Your task to perform on an android device: see sites visited before in the chrome app Image 0: 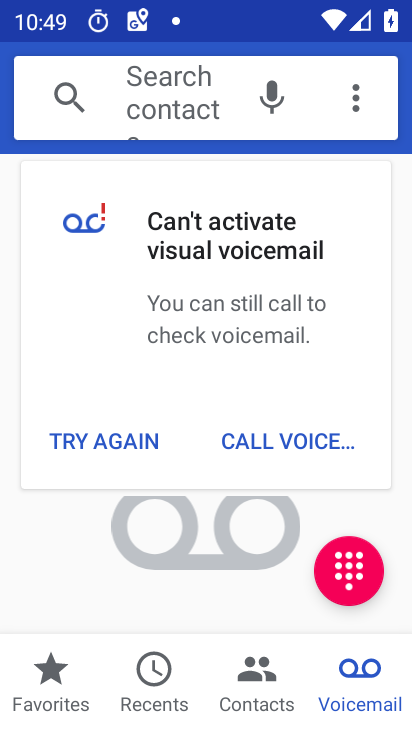
Step 0: press home button
Your task to perform on an android device: see sites visited before in the chrome app Image 1: 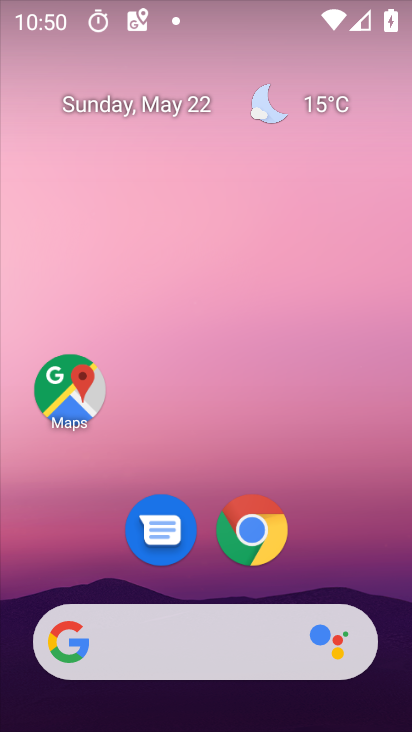
Step 1: click (234, 533)
Your task to perform on an android device: see sites visited before in the chrome app Image 2: 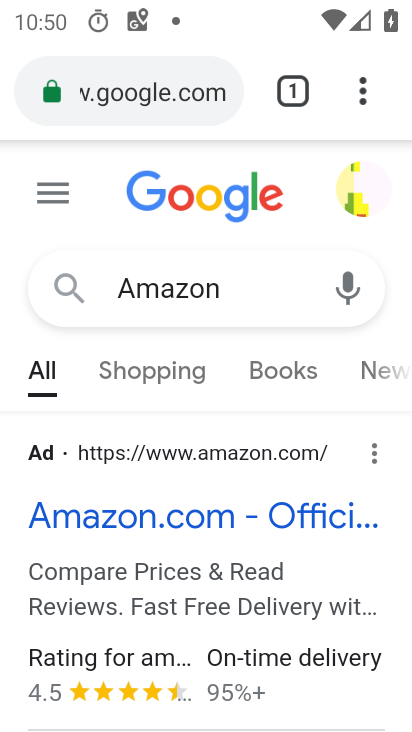
Step 2: click (356, 84)
Your task to perform on an android device: see sites visited before in the chrome app Image 3: 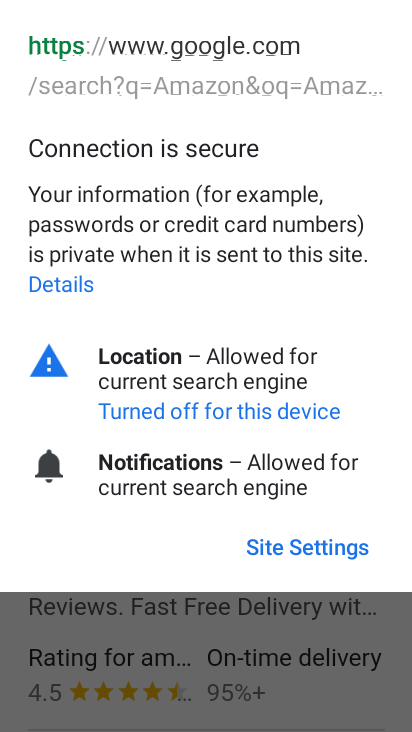
Step 3: press back button
Your task to perform on an android device: see sites visited before in the chrome app Image 4: 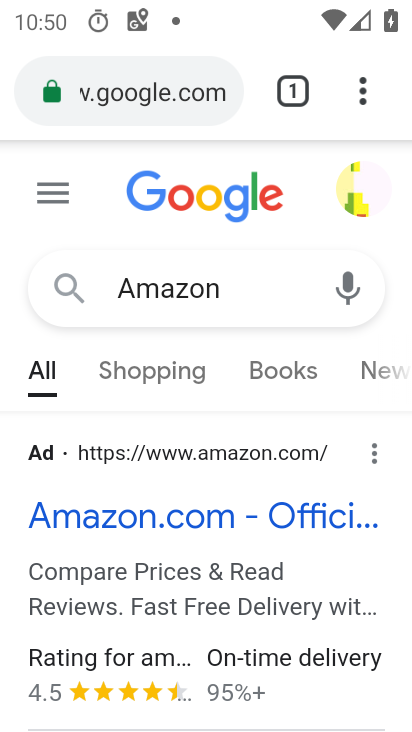
Step 4: click (362, 82)
Your task to perform on an android device: see sites visited before in the chrome app Image 5: 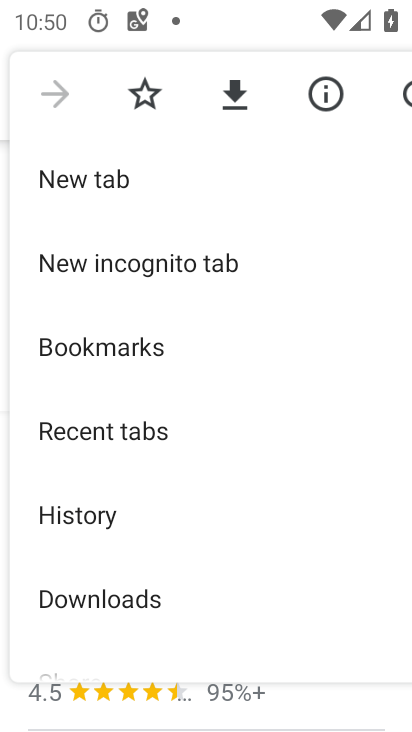
Step 5: drag from (277, 544) to (281, 396)
Your task to perform on an android device: see sites visited before in the chrome app Image 6: 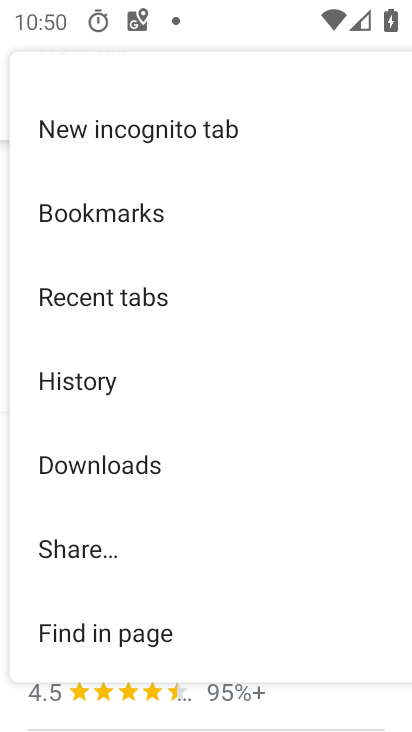
Step 6: drag from (287, 634) to (305, 333)
Your task to perform on an android device: see sites visited before in the chrome app Image 7: 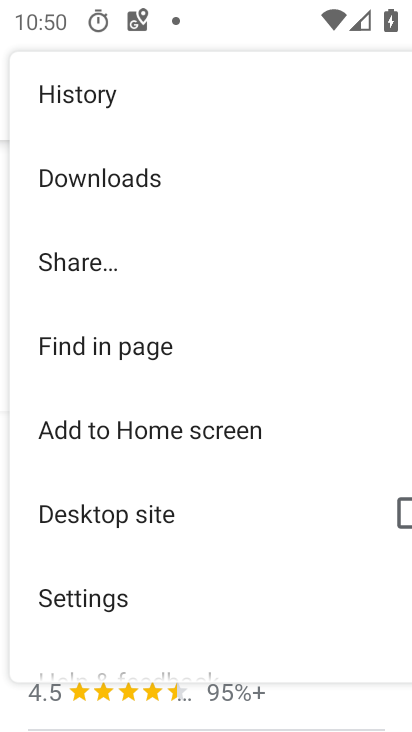
Step 7: drag from (307, 552) to (297, 315)
Your task to perform on an android device: see sites visited before in the chrome app Image 8: 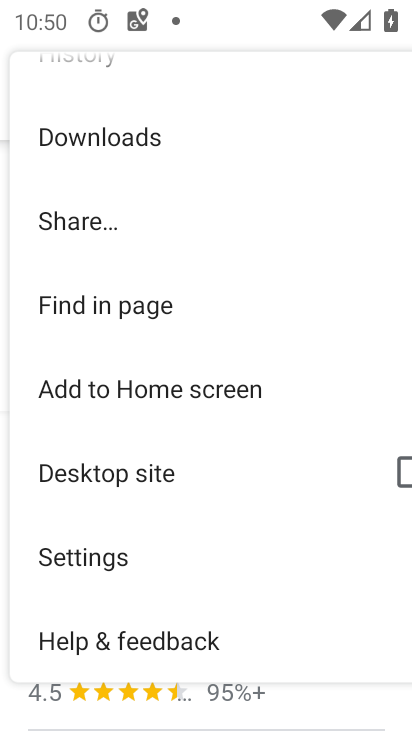
Step 8: drag from (255, 183) to (257, 519)
Your task to perform on an android device: see sites visited before in the chrome app Image 9: 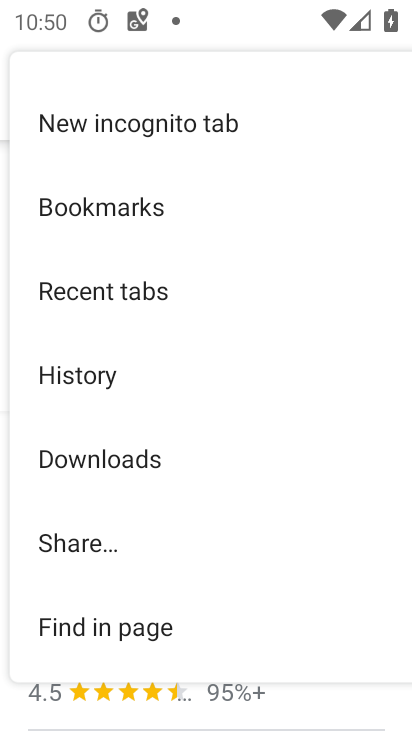
Step 9: drag from (298, 201) to (295, 448)
Your task to perform on an android device: see sites visited before in the chrome app Image 10: 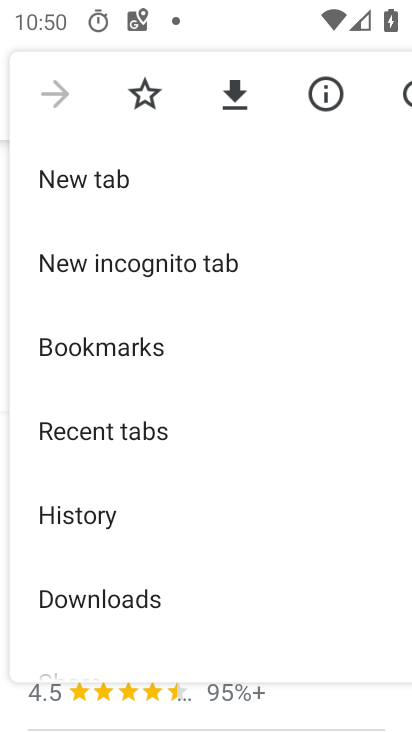
Step 10: click (69, 433)
Your task to perform on an android device: see sites visited before in the chrome app Image 11: 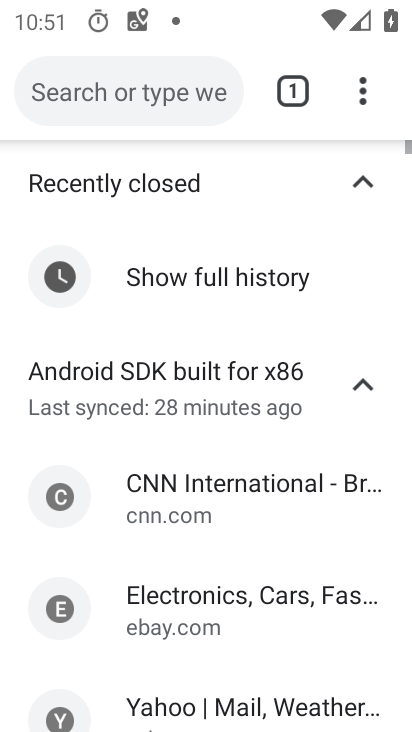
Step 11: task complete